Your task to perform on an android device: Open wifi settings Image 0: 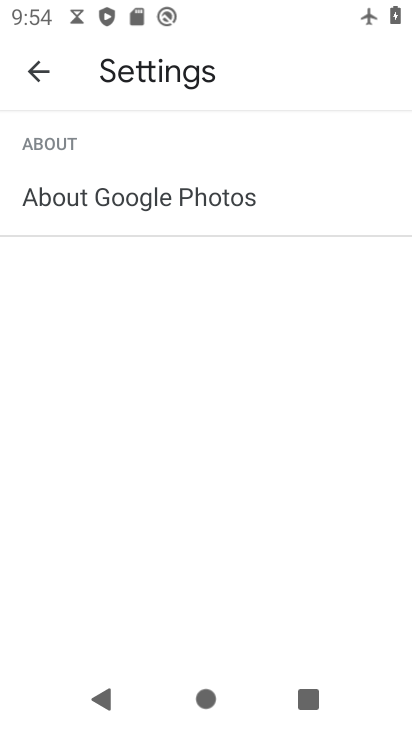
Step 0: press home button
Your task to perform on an android device: Open wifi settings Image 1: 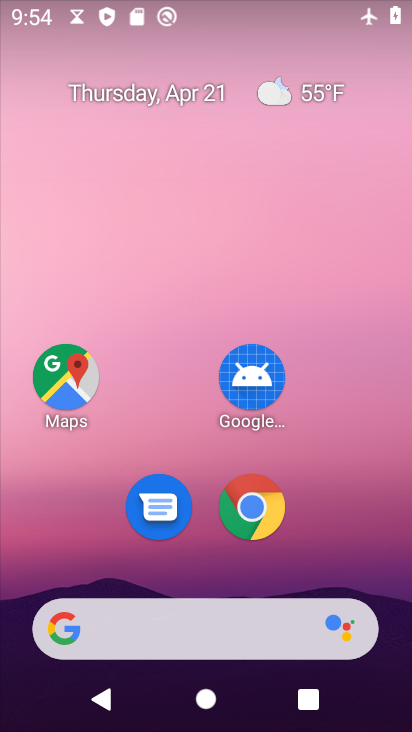
Step 1: drag from (283, 526) to (269, 150)
Your task to perform on an android device: Open wifi settings Image 2: 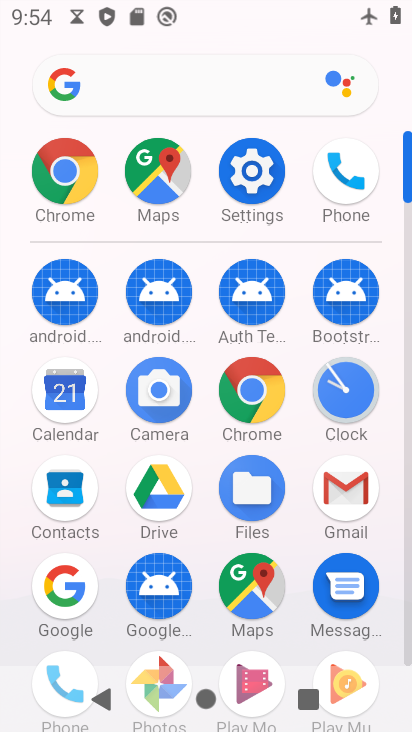
Step 2: click (248, 170)
Your task to perform on an android device: Open wifi settings Image 3: 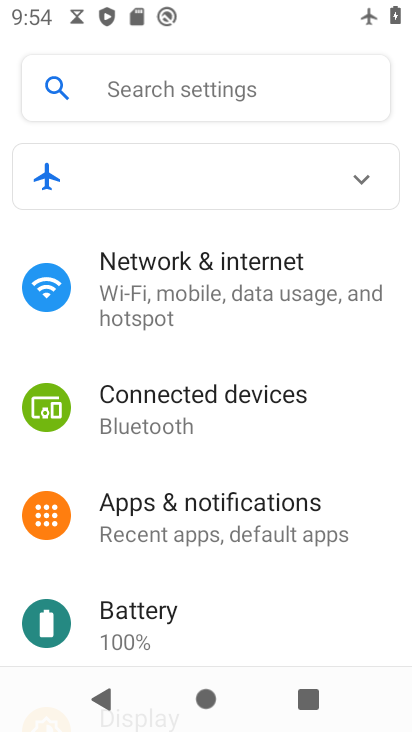
Step 3: click (201, 262)
Your task to perform on an android device: Open wifi settings Image 4: 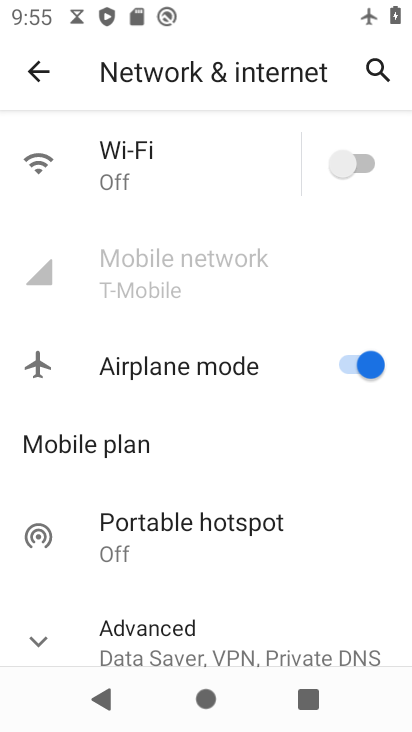
Step 4: click (360, 147)
Your task to perform on an android device: Open wifi settings Image 5: 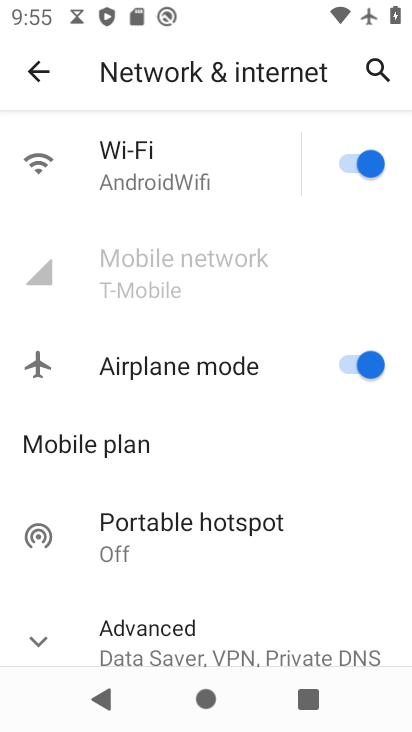
Step 5: click (123, 156)
Your task to perform on an android device: Open wifi settings Image 6: 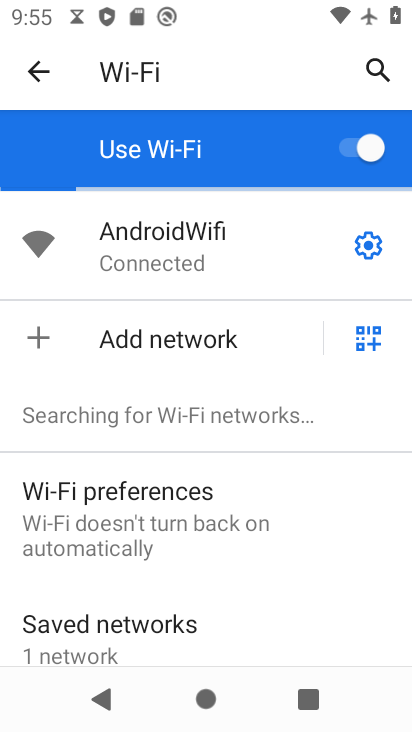
Step 6: task complete